Your task to perform on an android device: toggle airplane mode Image 0: 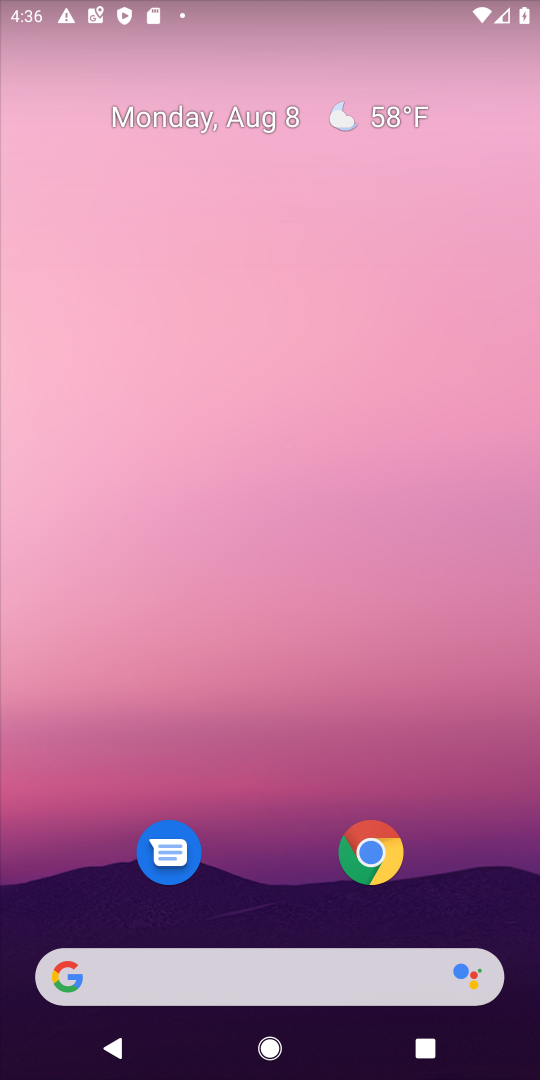
Step 0: drag from (252, 777) to (448, 57)
Your task to perform on an android device: toggle airplane mode Image 1: 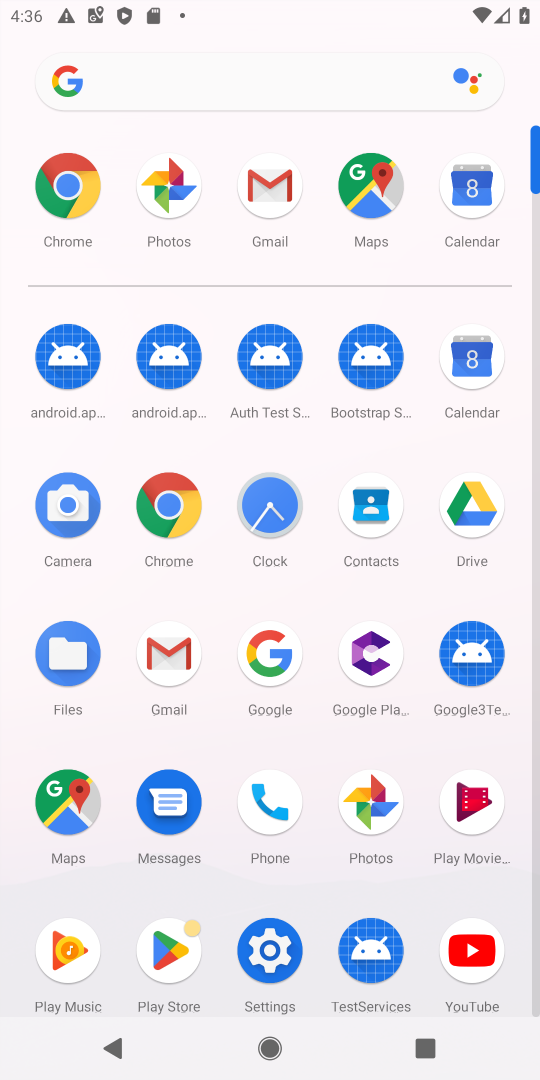
Step 1: click (262, 942)
Your task to perform on an android device: toggle airplane mode Image 2: 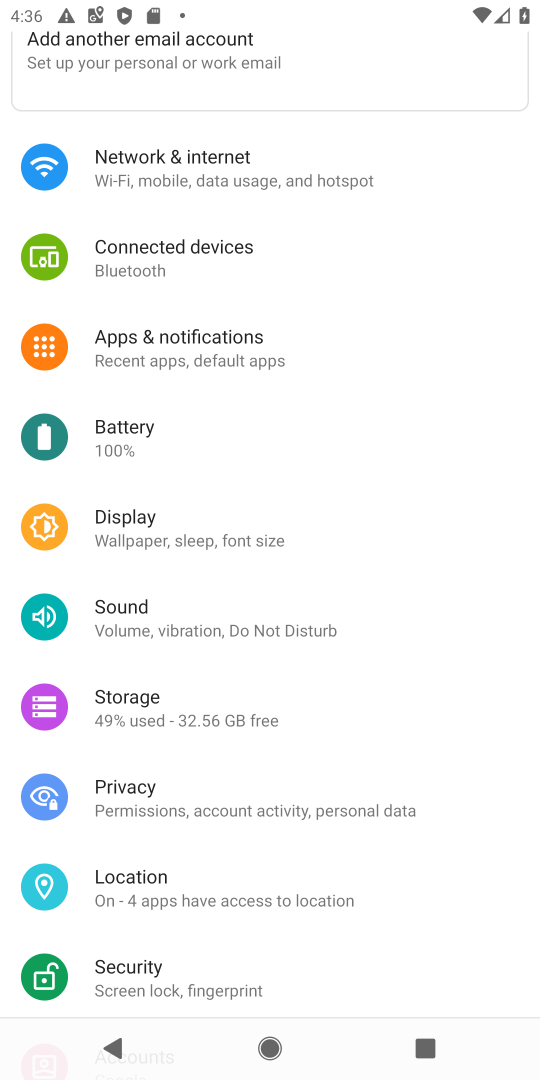
Step 2: click (246, 159)
Your task to perform on an android device: toggle airplane mode Image 3: 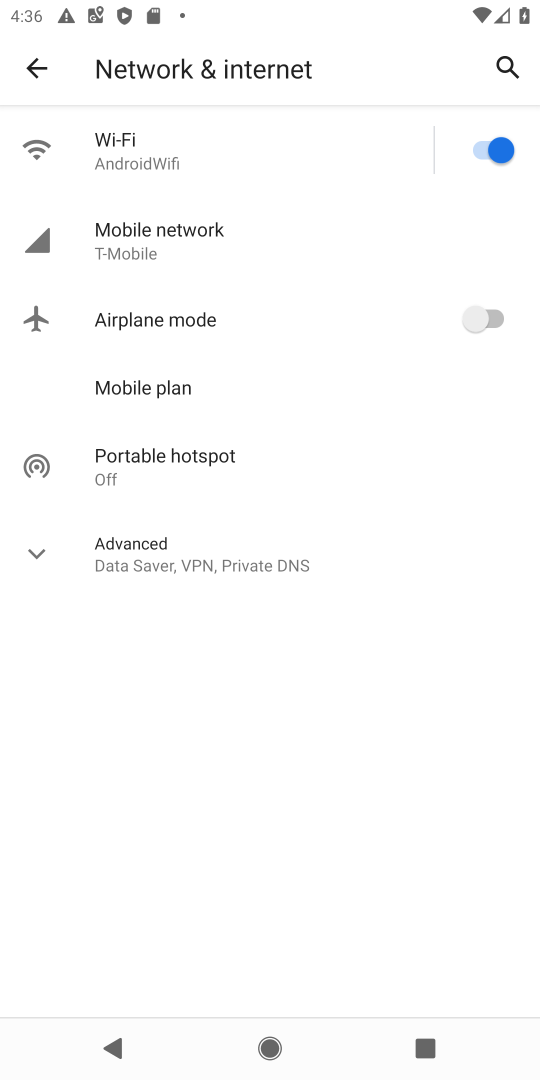
Step 3: click (466, 325)
Your task to perform on an android device: toggle airplane mode Image 4: 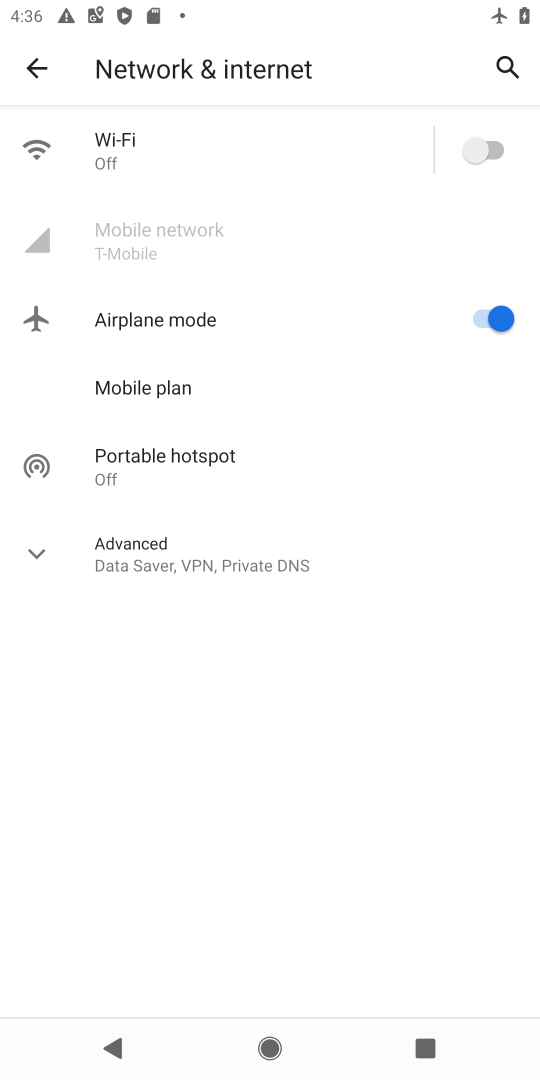
Step 4: task complete